Your task to perform on an android device: Go to display settings Image 0: 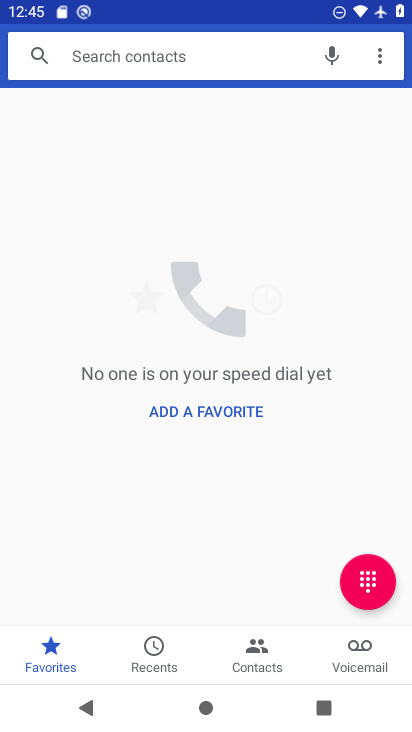
Step 0: press home button
Your task to perform on an android device: Go to display settings Image 1: 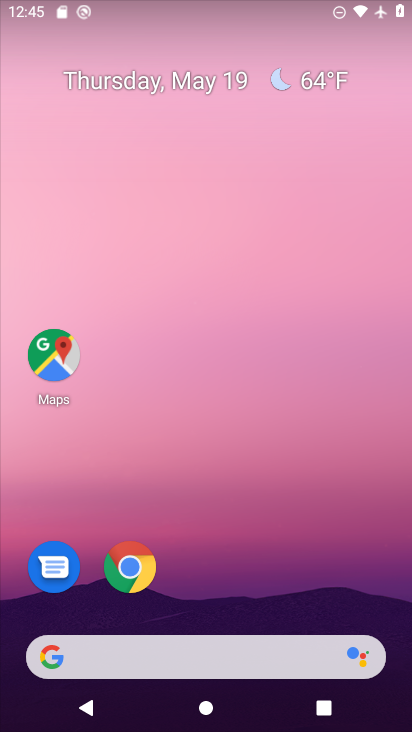
Step 1: drag from (254, 527) to (182, 60)
Your task to perform on an android device: Go to display settings Image 2: 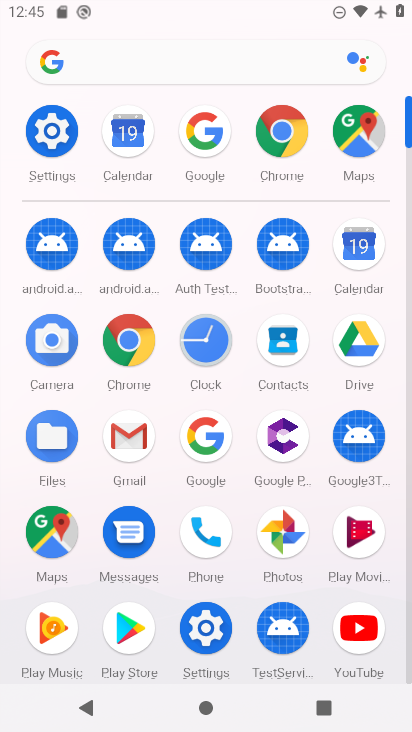
Step 2: click (44, 139)
Your task to perform on an android device: Go to display settings Image 3: 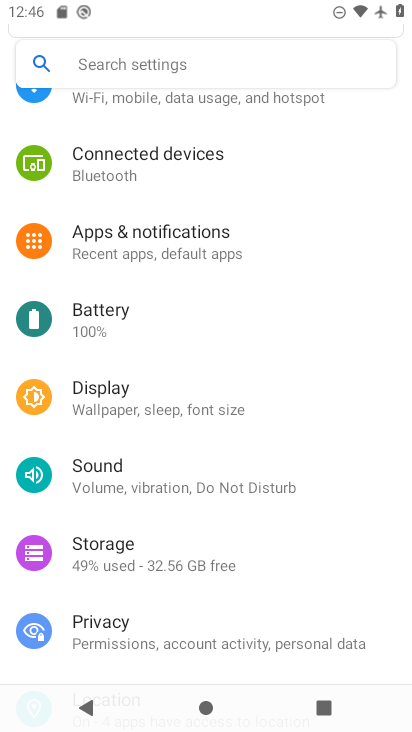
Step 3: drag from (202, 272) to (208, 410)
Your task to perform on an android device: Go to display settings Image 4: 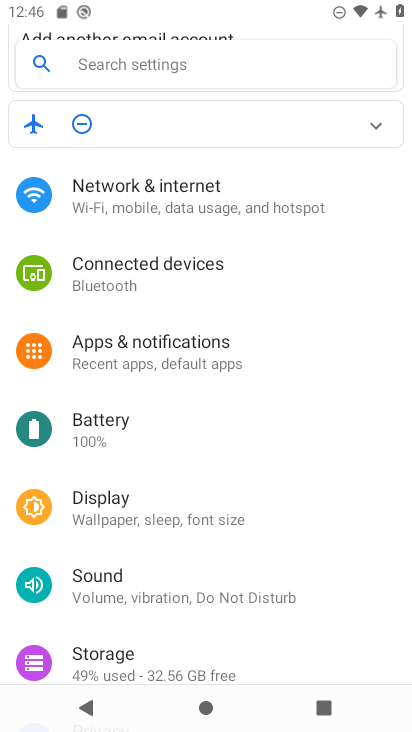
Step 4: click (160, 508)
Your task to perform on an android device: Go to display settings Image 5: 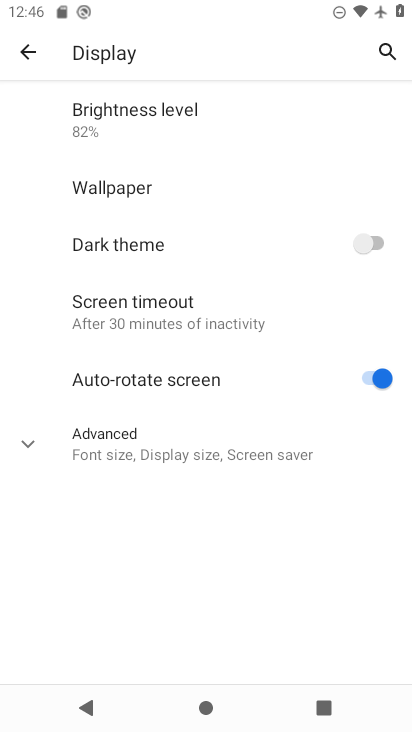
Step 5: task complete